Your task to perform on an android device: turn smart compose on in the gmail app Image 0: 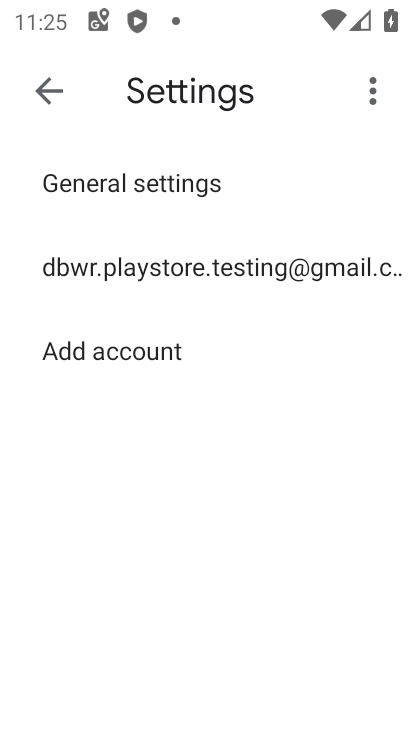
Step 0: press home button
Your task to perform on an android device: turn smart compose on in the gmail app Image 1: 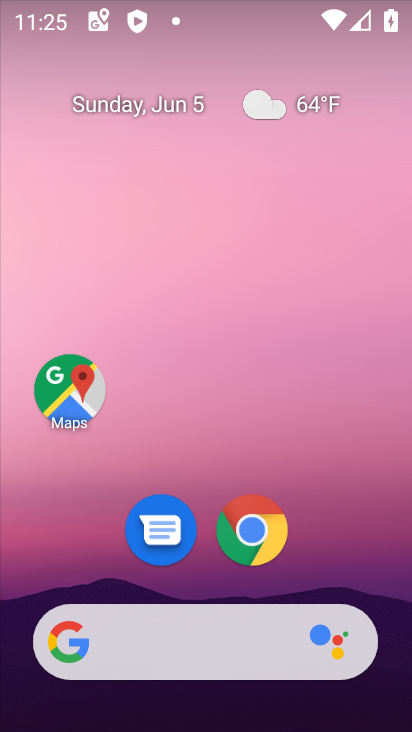
Step 1: drag from (339, 513) to (358, 0)
Your task to perform on an android device: turn smart compose on in the gmail app Image 2: 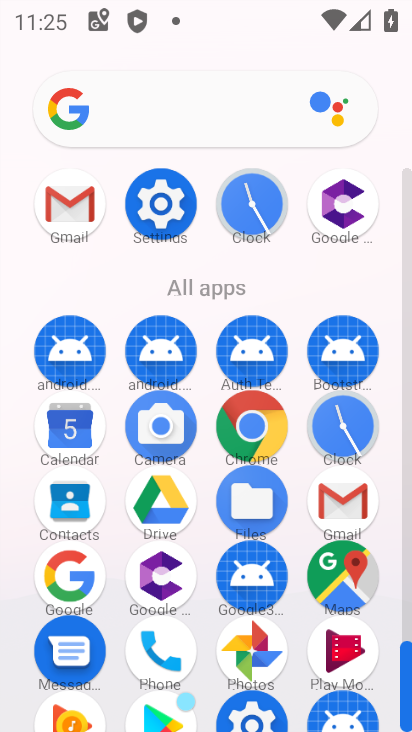
Step 2: click (353, 508)
Your task to perform on an android device: turn smart compose on in the gmail app Image 3: 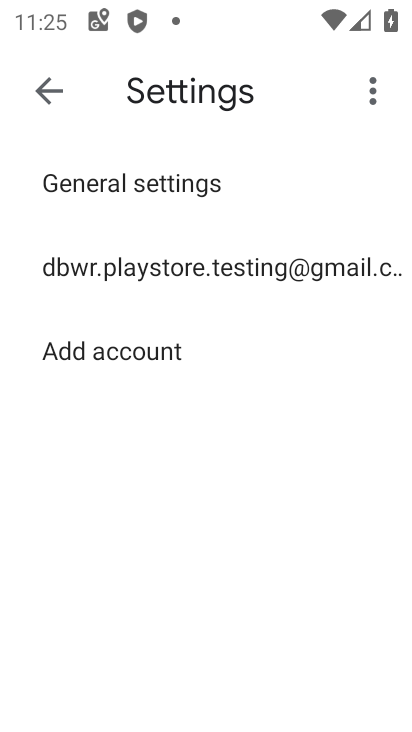
Step 3: click (58, 99)
Your task to perform on an android device: turn smart compose on in the gmail app Image 4: 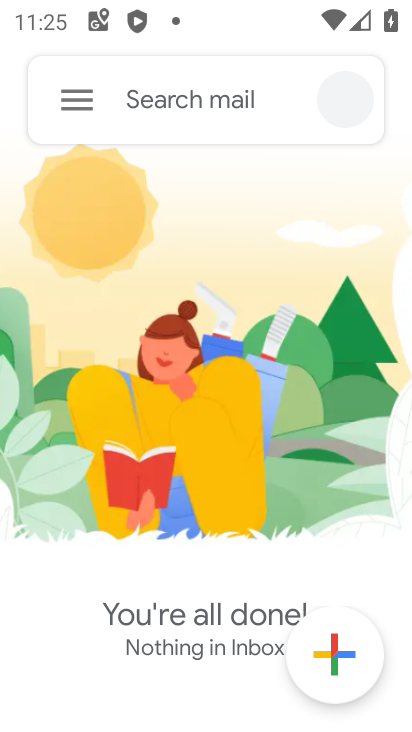
Step 4: click (58, 99)
Your task to perform on an android device: turn smart compose on in the gmail app Image 5: 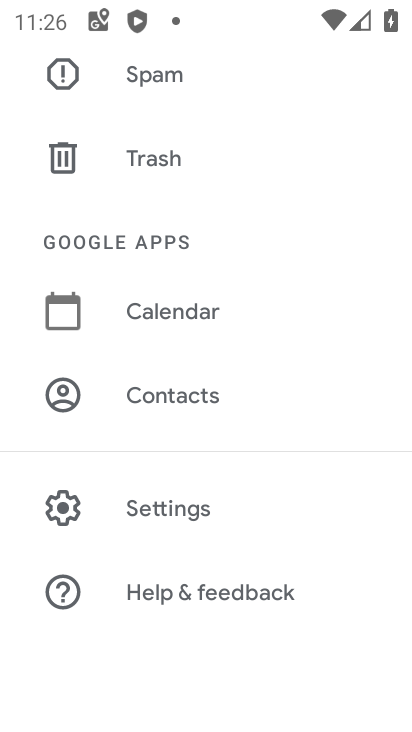
Step 5: click (130, 535)
Your task to perform on an android device: turn smart compose on in the gmail app Image 6: 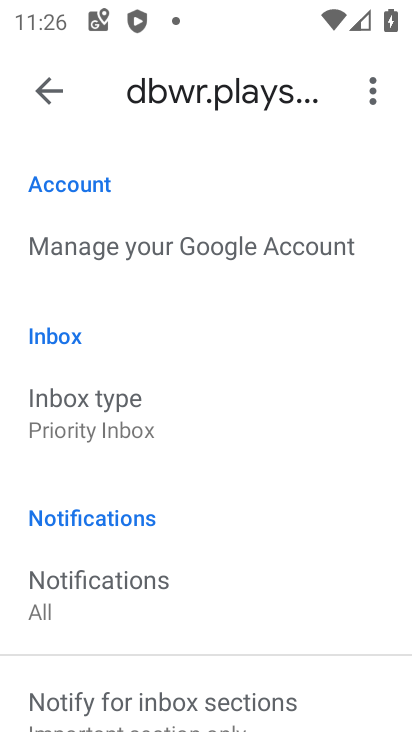
Step 6: task complete